Your task to perform on an android device: Open battery settings Image 0: 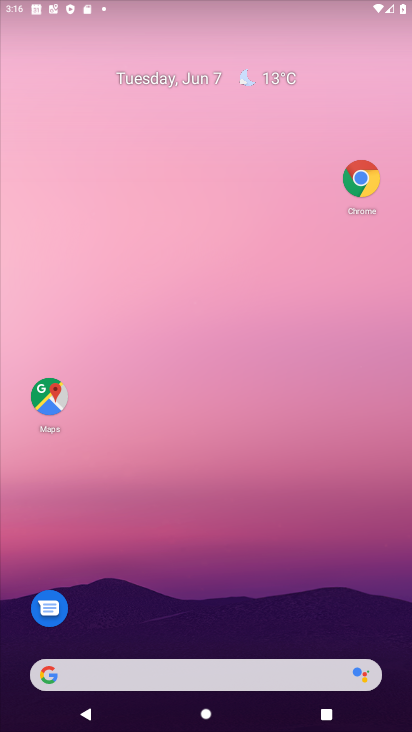
Step 0: drag from (261, 619) to (369, 110)
Your task to perform on an android device: Open battery settings Image 1: 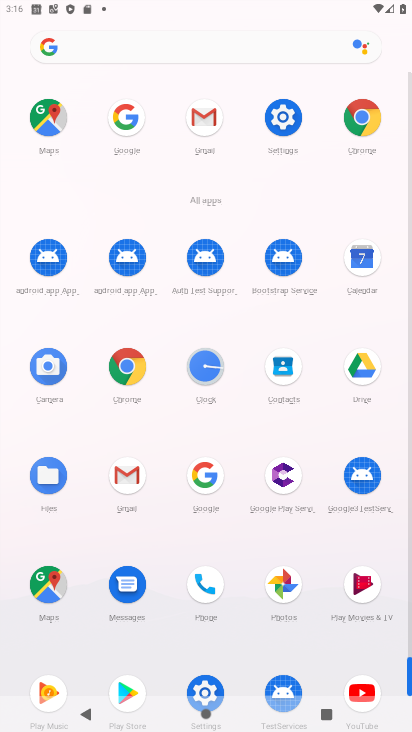
Step 1: click (204, 698)
Your task to perform on an android device: Open battery settings Image 2: 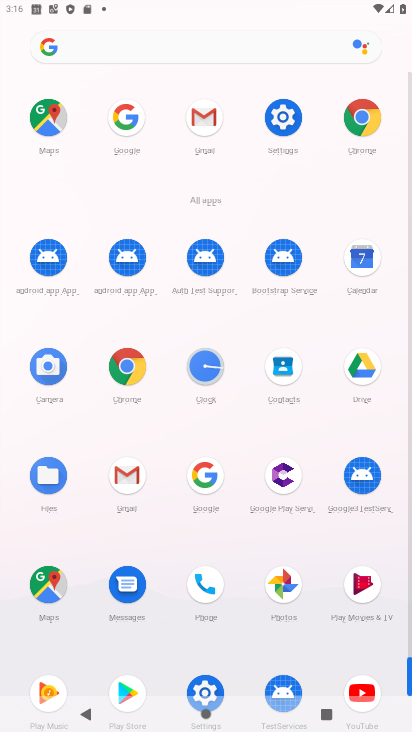
Step 2: click (205, 693)
Your task to perform on an android device: Open battery settings Image 3: 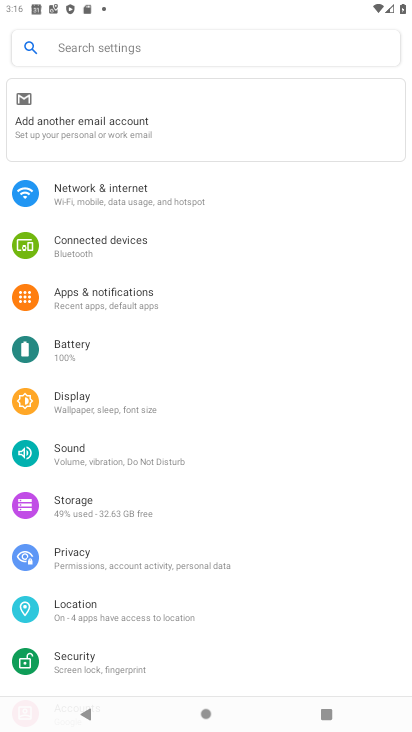
Step 3: drag from (138, 575) to (245, 256)
Your task to perform on an android device: Open battery settings Image 4: 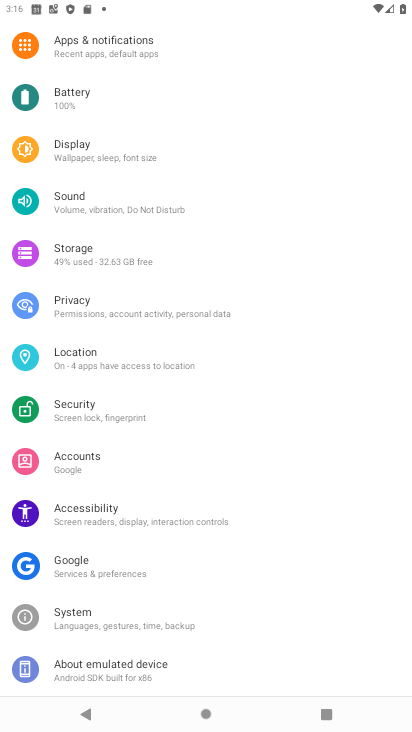
Step 4: click (132, 105)
Your task to perform on an android device: Open battery settings Image 5: 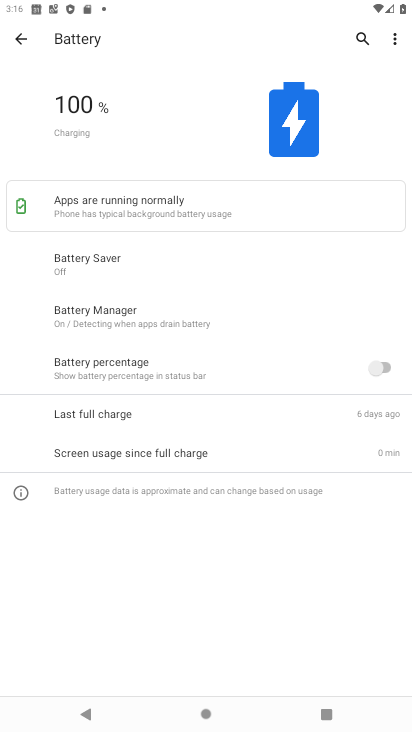
Step 5: task complete